Your task to perform on an android device: Open the web browser Image 0: 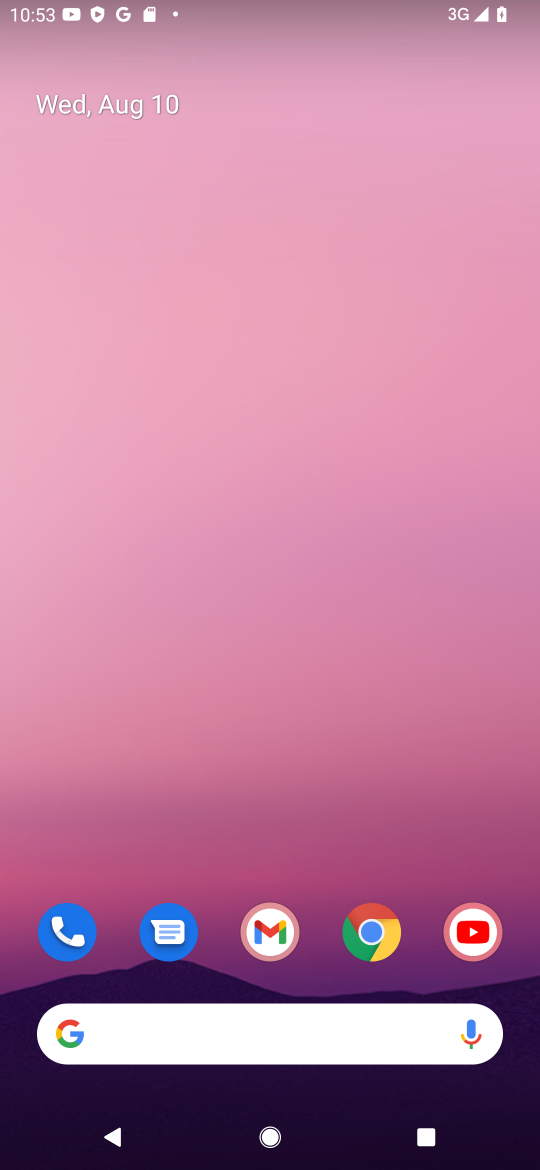
Step 0: click (384, 934)
Your task to perform on an android device: Open the web browser Image 1: 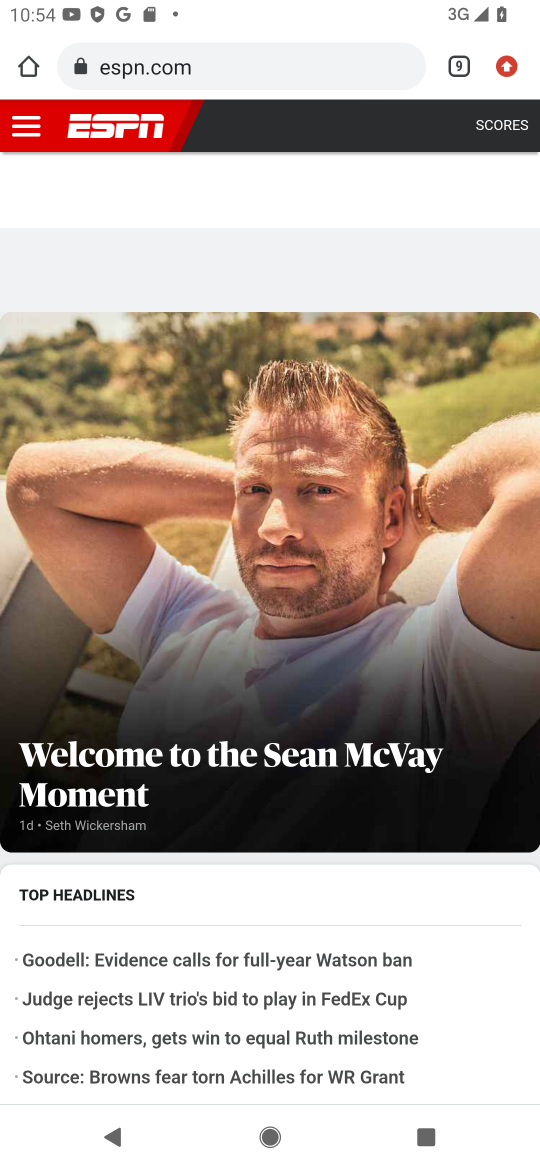
Step 1: task complete